Your task to perform on an android device: Go to eBay Image 0: 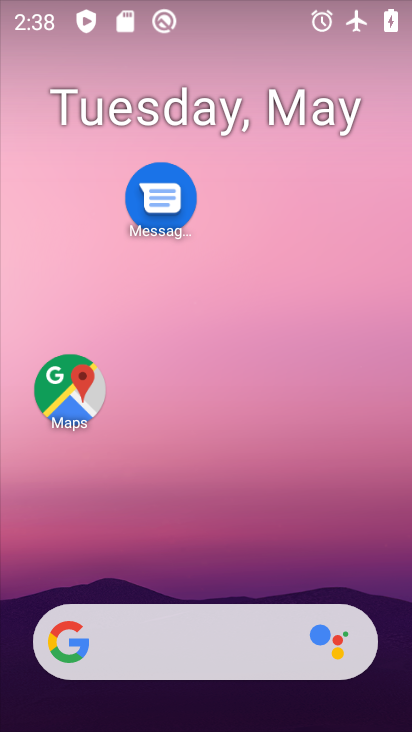
Step 0: drag from (252, 572) to (279, 235)
Your task to perform on an android device: Go to eBay Image 1: 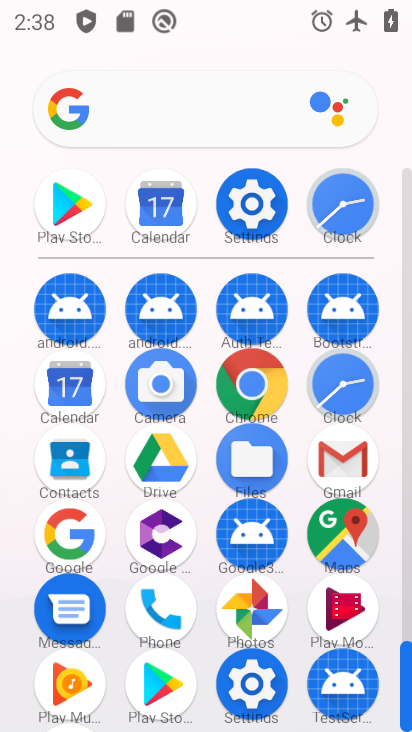
Step 1: click (268, 404)
Your task to perform on an android device: Go to eBay Image 2: 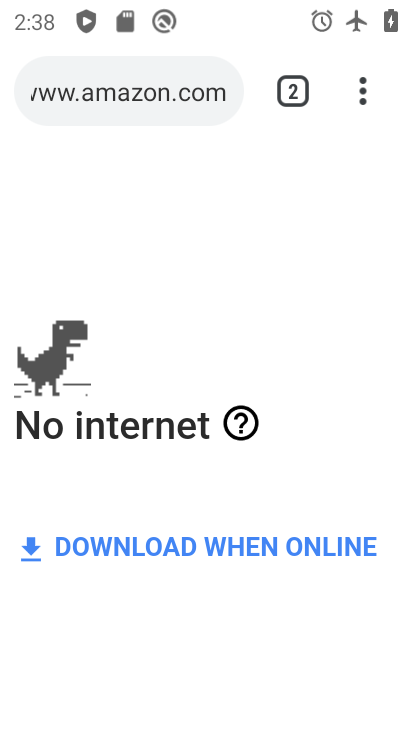
Step 2: click (281, 86)
Your task to perform on an android device: Go to eBay Image 3: 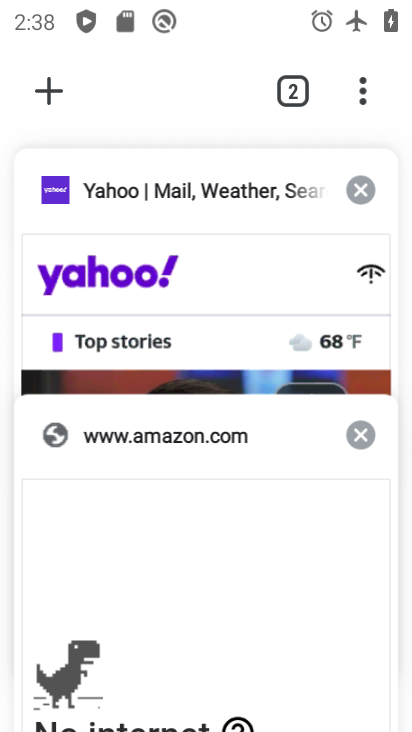
Step 3: click (54, 87)
Your task to perform on an android device: Go to eBay Image 4: 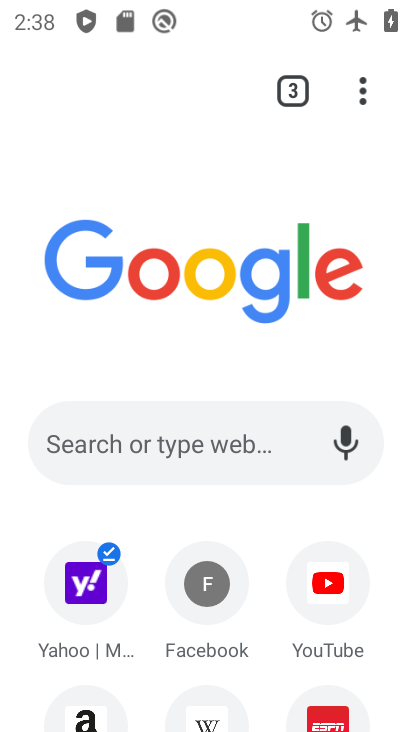
Step 4: drag from (236, 664) to (247, 513)
Your task to perform on an android device: Go to eBay Image 5: 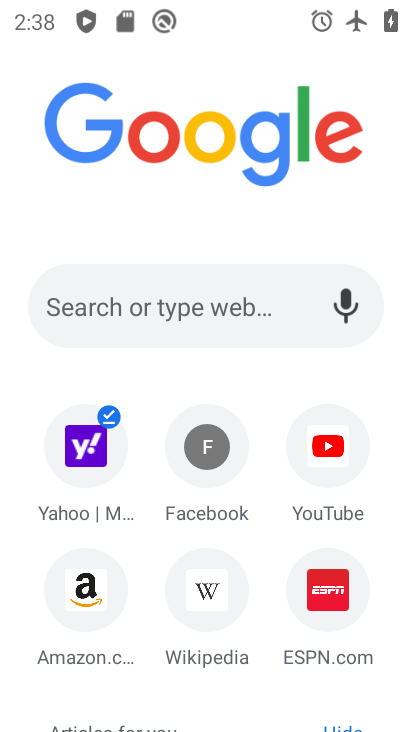
Step 5: drag from (244, 608) to (263, 401)
Your task to perform on an android device: Go to eBay Image 6: 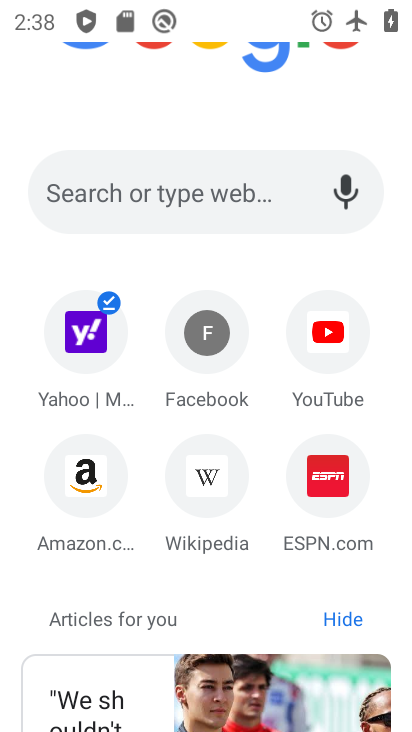
Step 6: click (168, 199)
Your task to perform on an android device: Go to eBay Image 7: 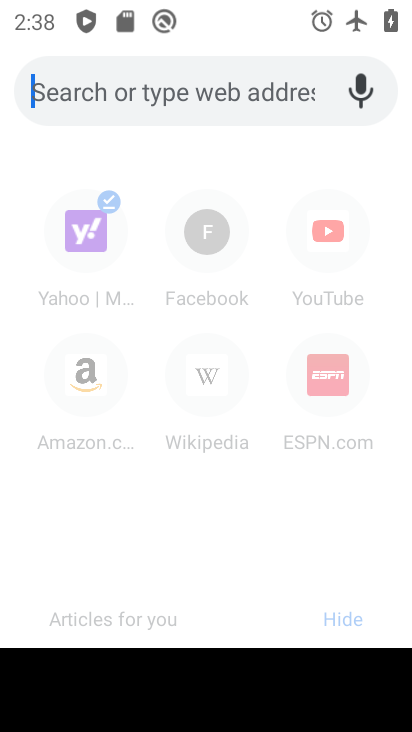
Step 7: type "eBay"
Your task to perform on an android device: Go to eBay Image 8: 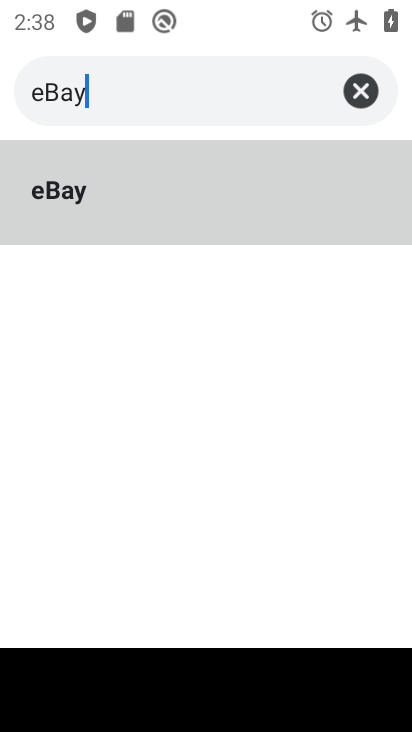
Step 8: click (106, 187)
Your task to perform on an android device: Go to eBay Image 9: 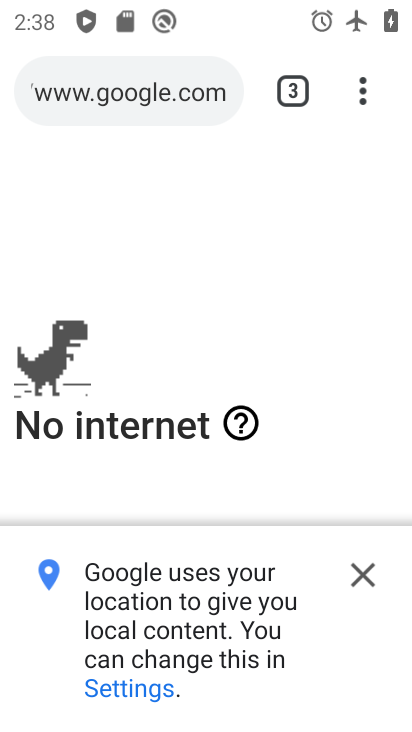
Step 9: task complete